Your task to perform on an android device: toggle sleep mode Image 0: 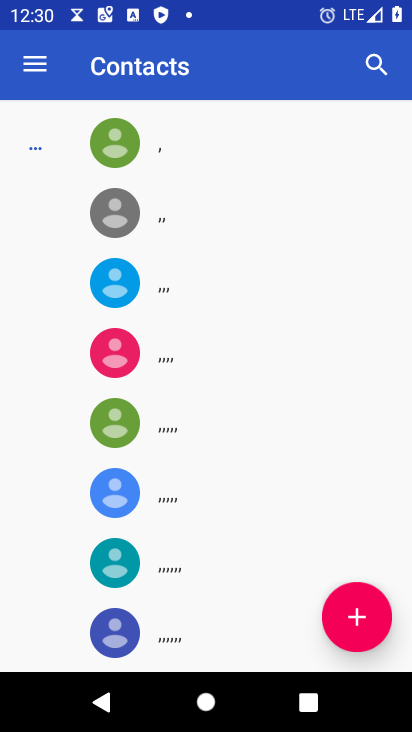
Step 0: press home button
Your task to perform on an android device: toggle sleep mode Image 1: 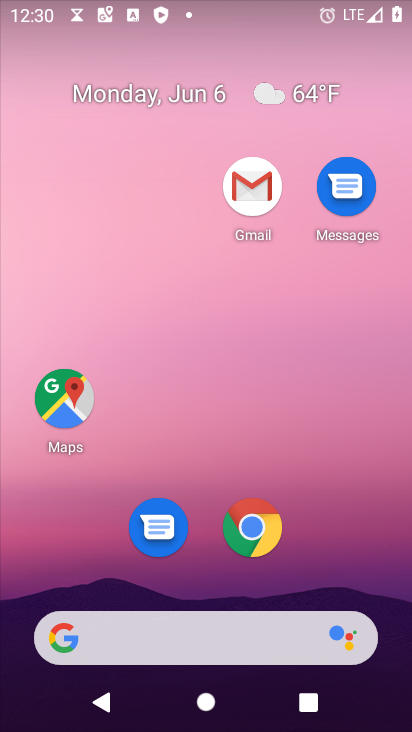
Step 1: drag from (324, 559) to (176, 73)
Your task to perform on an android device: toggle sleep mode Image 2: 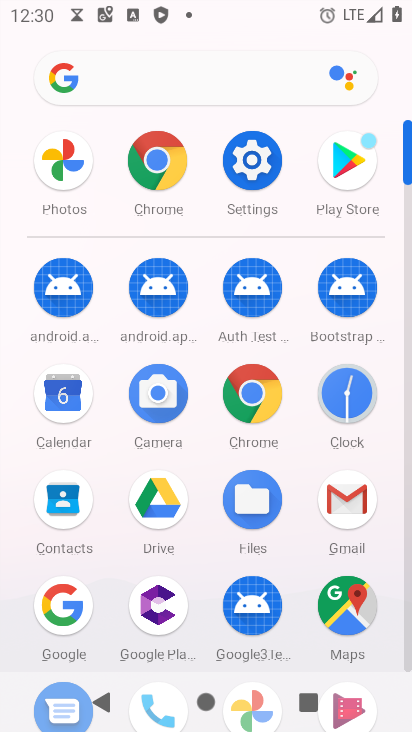
Step 2: click (258, 161)
Your task to perform on an android device: toggle sleep mode Image 3: 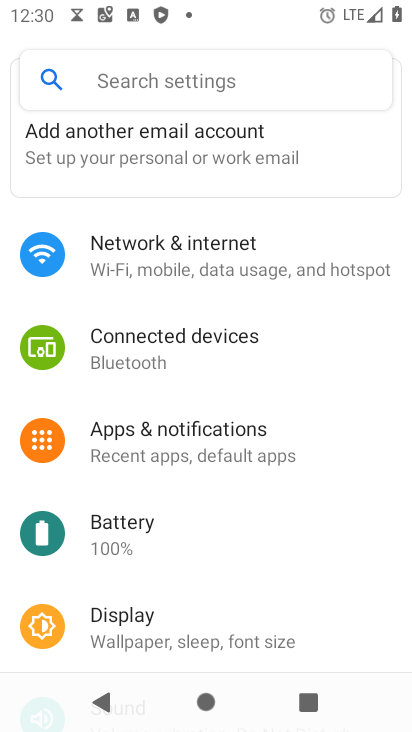
Step 3: click (169, 636)
Your task to perform on an android device: toggle sleep mode Image 4: 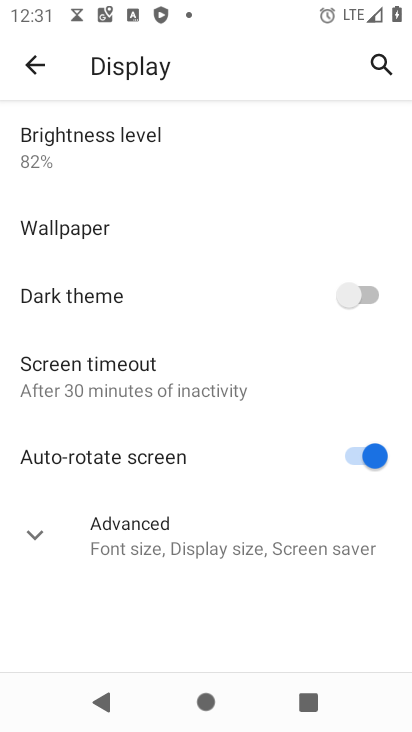
Step 4: click (172, 538)
Your task to perform on an android device: toggle sleep mode Image 5: 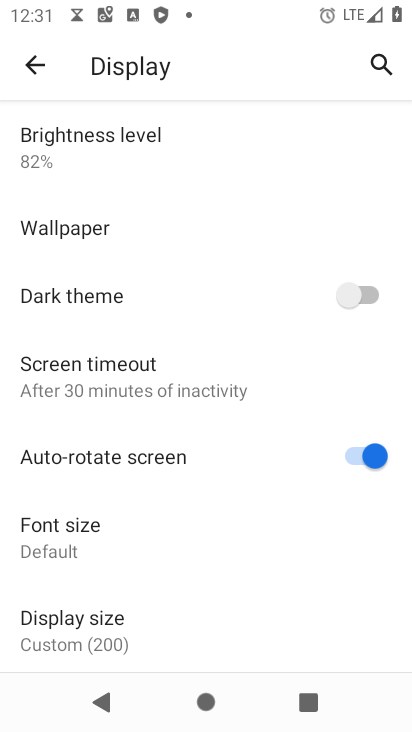
Step 5: task complete